Your task to perform on an android device: Open the Play Movies app and select the watchlist tab. Image 0: 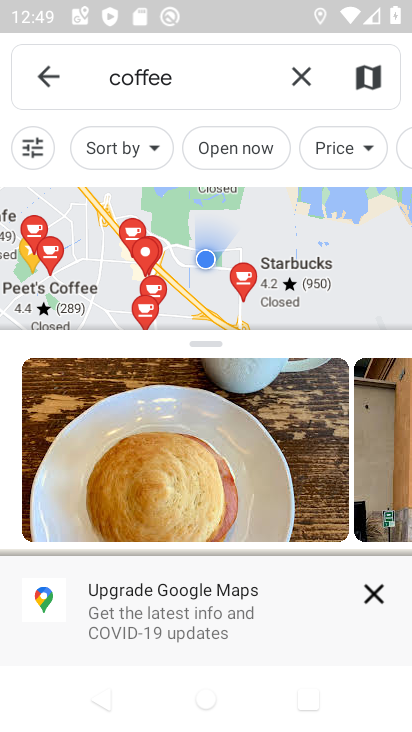
Step 0: press home button
Your task to perform on an android device: Open the Play Movies app and select the watchlist tab. Image 1: 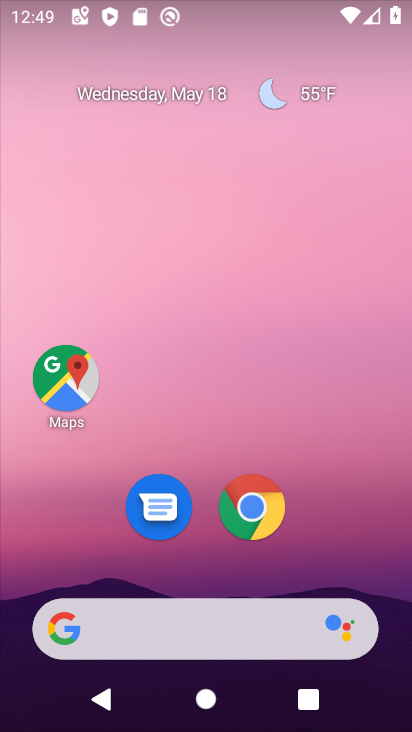
Step 1: drag from (387, 604) to (300, 103)
Your task to perform on an android device: Open the Play Movies app and select the watchlist tab. Image 2: 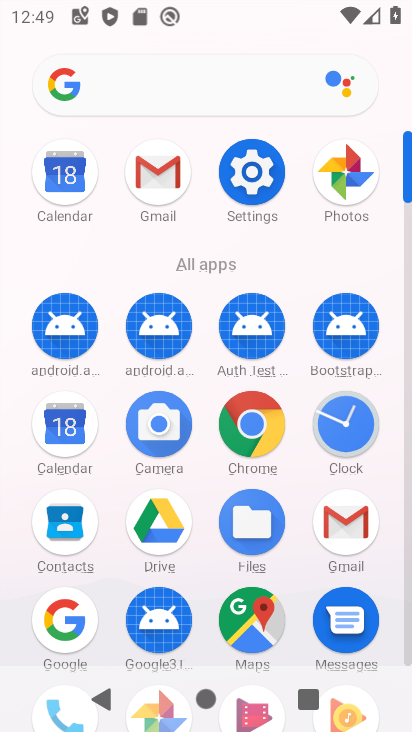
Step 2: click (407, 648)
Your task to perform on an android device: Open the Play Movies app and select the watchlist tab. Image 3: 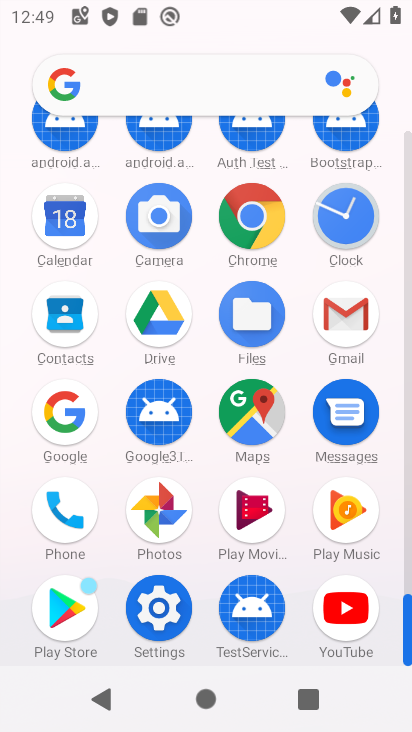
Step 3: click (258, 507)
Your task to perform on an android device: Open the Play Movies app and select the watchlist tab. Image 4: 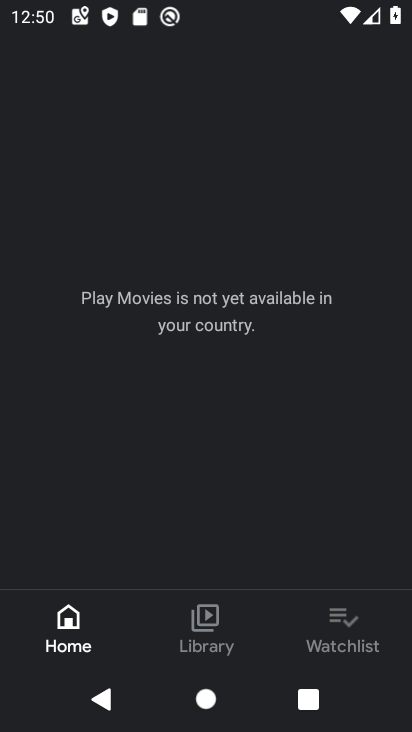
Step 4: click (333, 617)
Your task to perform on an android device: Open the Play Movies app and select the watchlist tab. Image 5: 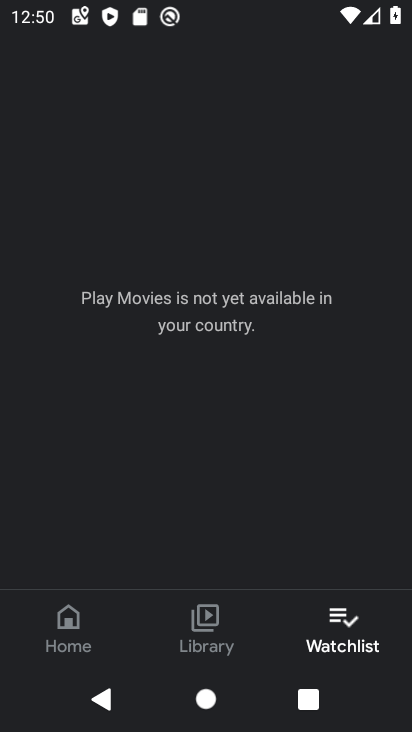
Step 5: task complete